Your task to perform on an android device: toggle wifi Image 0: 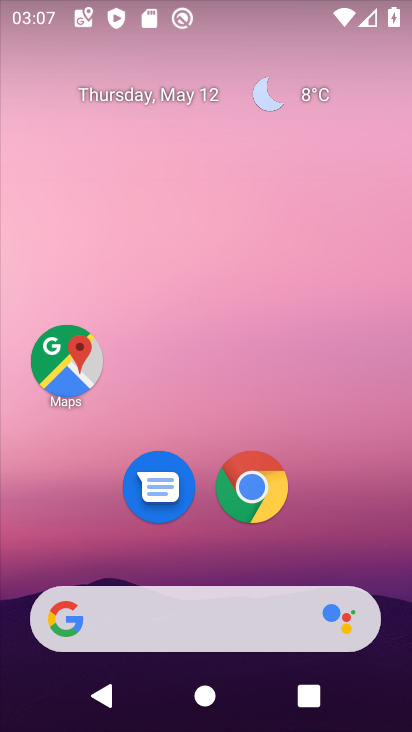
Step 0: drag from (332, 470) to (378, 105)
Your task to perform on an android device: toggle wifi Image 1: 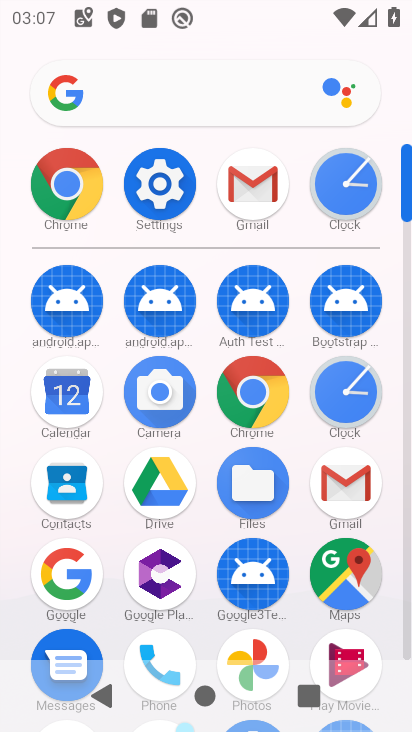
Step 1: click (166, 191)
Your task to perform on an android device: toggle wifi Image 2: 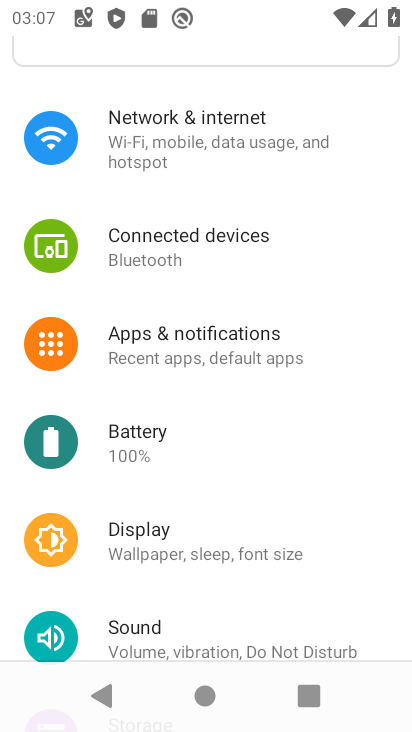
Step 2: drag from (227, 170) to (195, 527)
Your task to perform on an android device: toggle wifi Image 3: 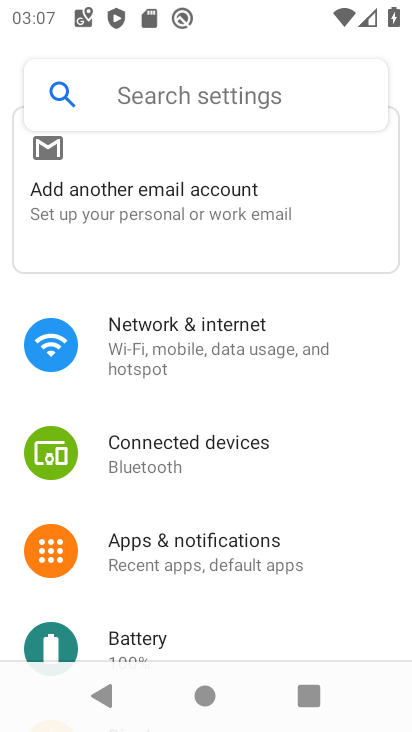
Step 3: click (172, 332)
Your task to perform on an android device: toggle wifi Image 4: 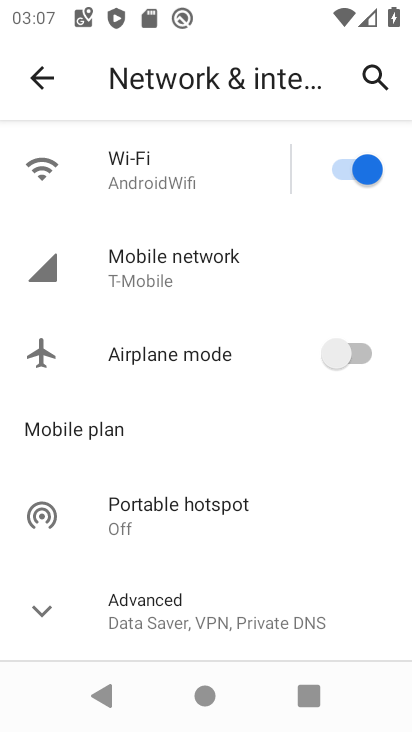
Step 4: click (162, 165)
Your task to perform on an android device: toggle wifi Image 5: 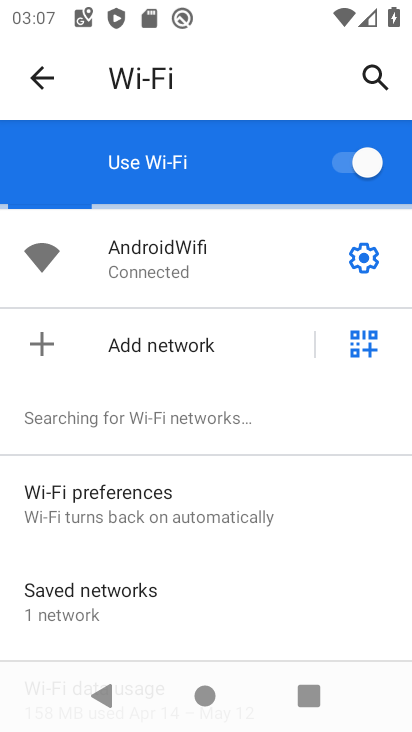
Step 5: click (357, 258)
Your task to perform on an android device: toggle wifi Image 6: 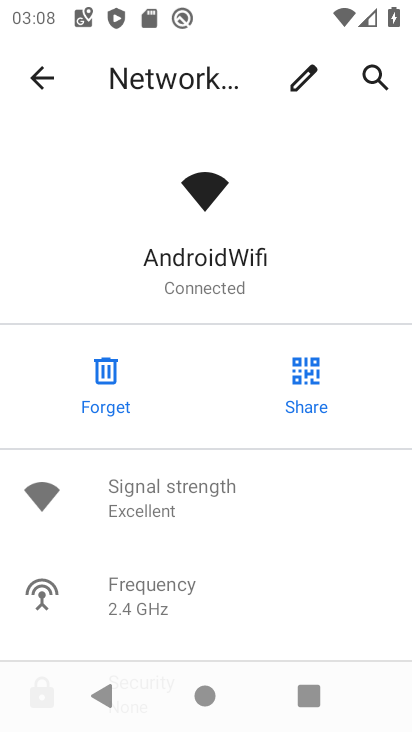
Step 6: click (41, 73)
Your task to perform on an android device: toggle wifi Image 7: 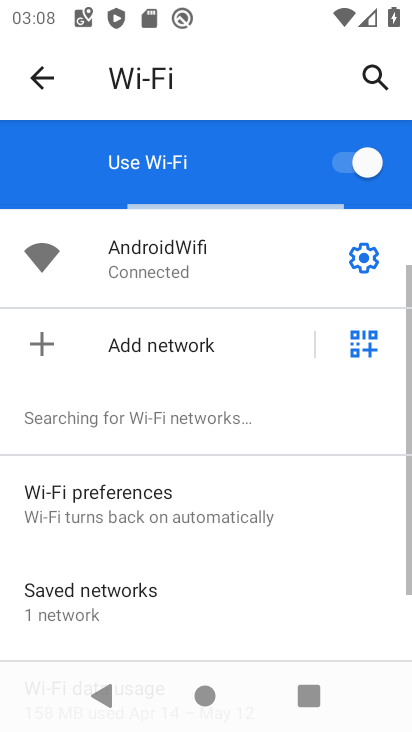
Step 7: click (343, 160)
Your task to perform on an android device: toggle wifi Image 8: 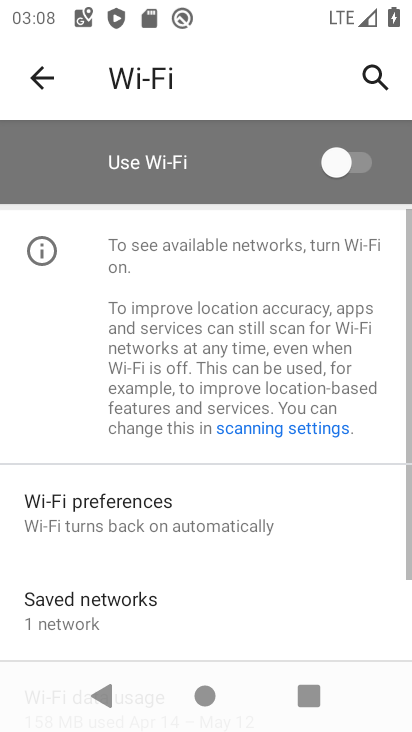
Step 8: task complete